Your task to perform on an android device: move an email to a new category in the gmail app Image 0: 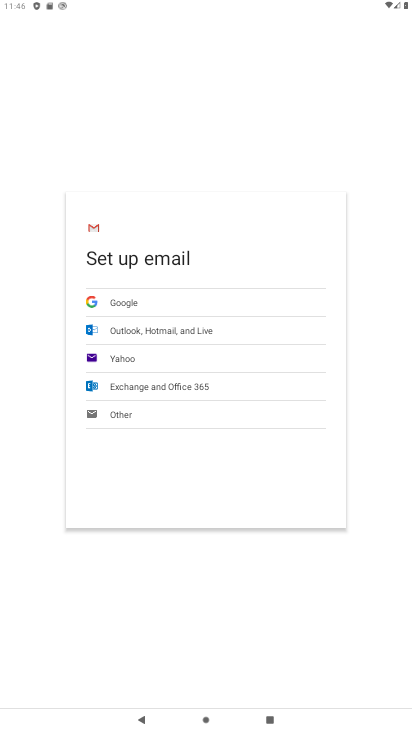
Step 0: press home button
Your task to perform on an android device: move an email to a new category in the gmail app Image 1: 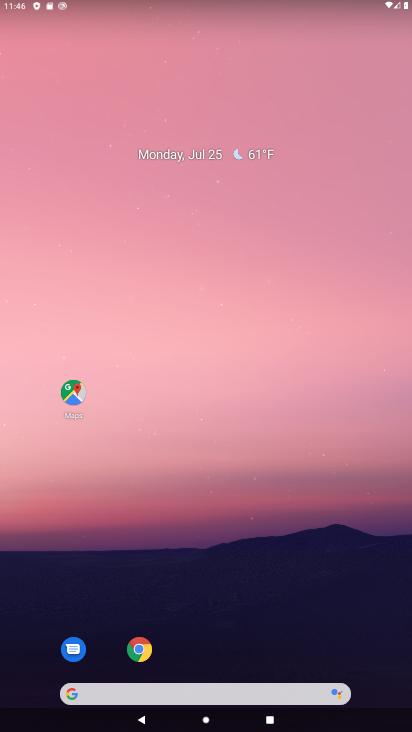
Step 1: drag from (194, 670) to (392, 12)
Your task to perform on an android device: move an email to a new category in the gmail app Image 2: 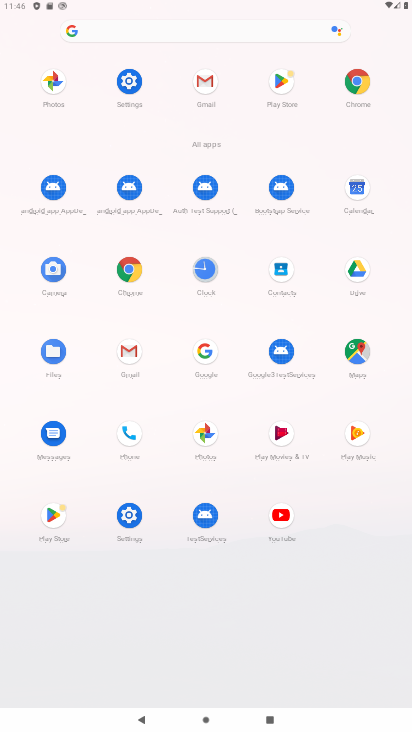
Step 2: click (134, 350)
Your task to perform on an android device: move an email to a new category in the gmail app Image 3: 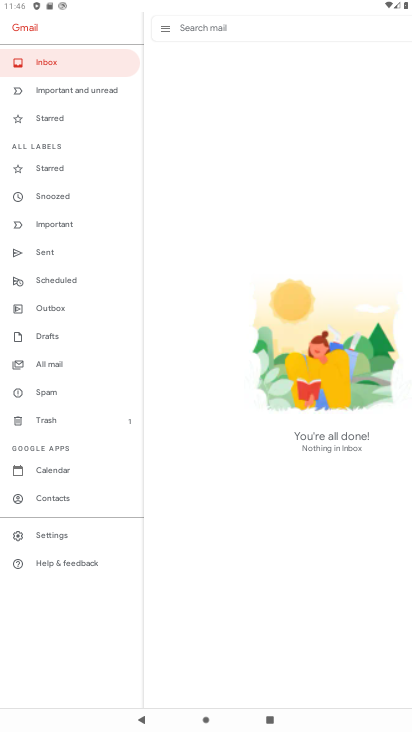
Step 3: click (67, 70)
Your task to perform on an android device: move an email to a new category in the gmail app Image 4: 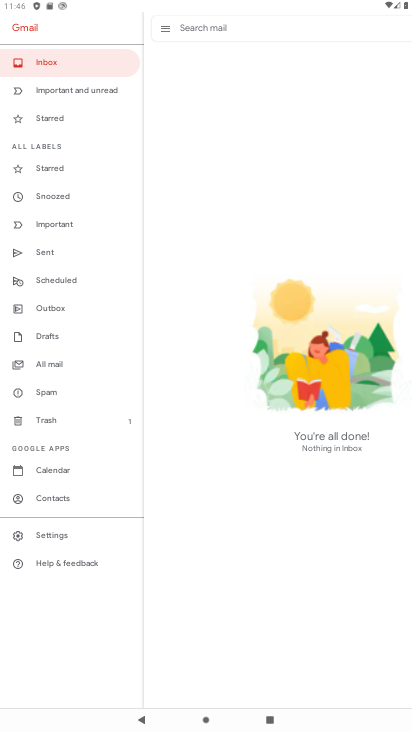
Step 4: task complete